Your task to perform on an android device: Add logitech g pro to the cart on costco.com Image 0: 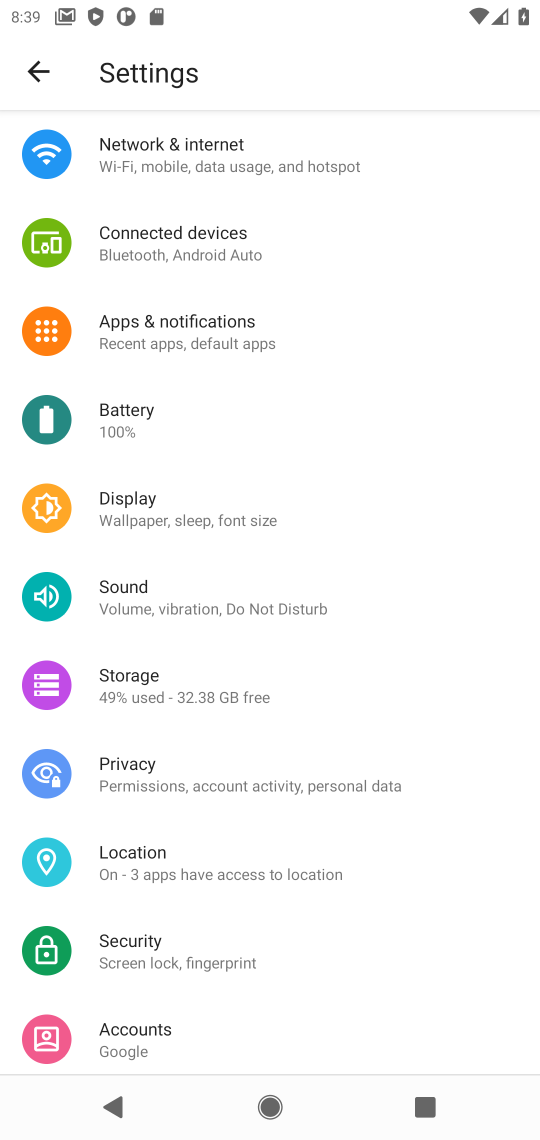
Step 0: press home button
Your task to perform on an android device: Add logitech g pro to the cart on costco.com Image 1: 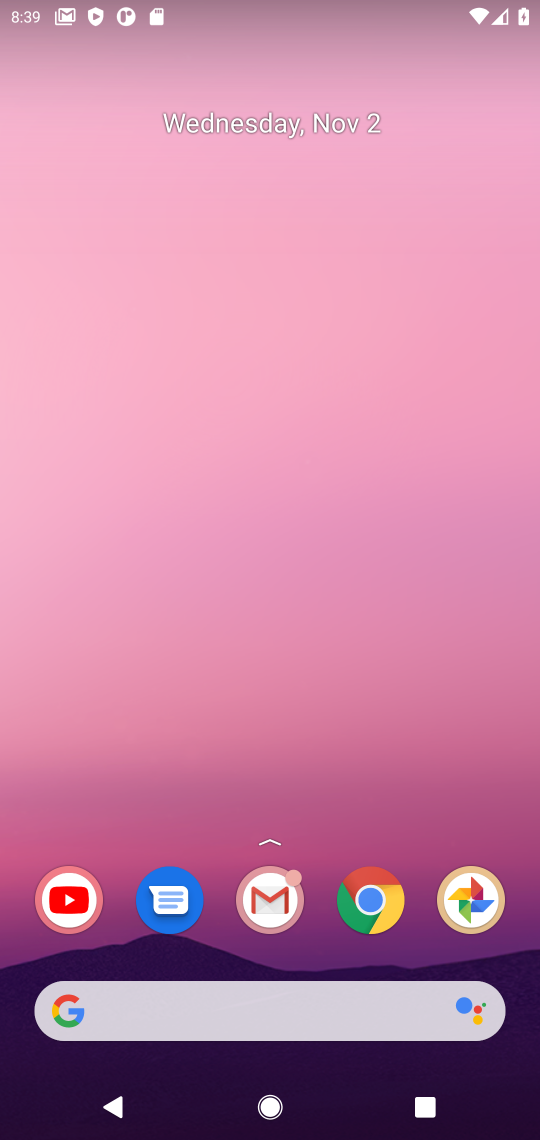
Step 1: click (376, 876)
Your task to perform on an android device: Add logitech g pro to the cart on costco.com Image 2: 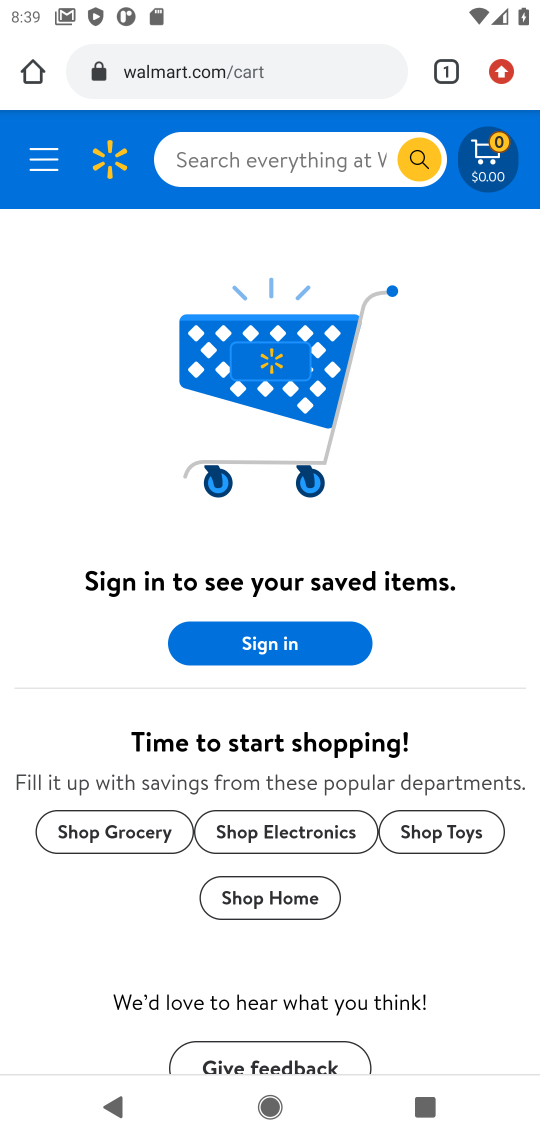
Step 2: click (230, 63)
Your task to perform on an android device: Add logitech g pro to the cart on costco.com Image 3: 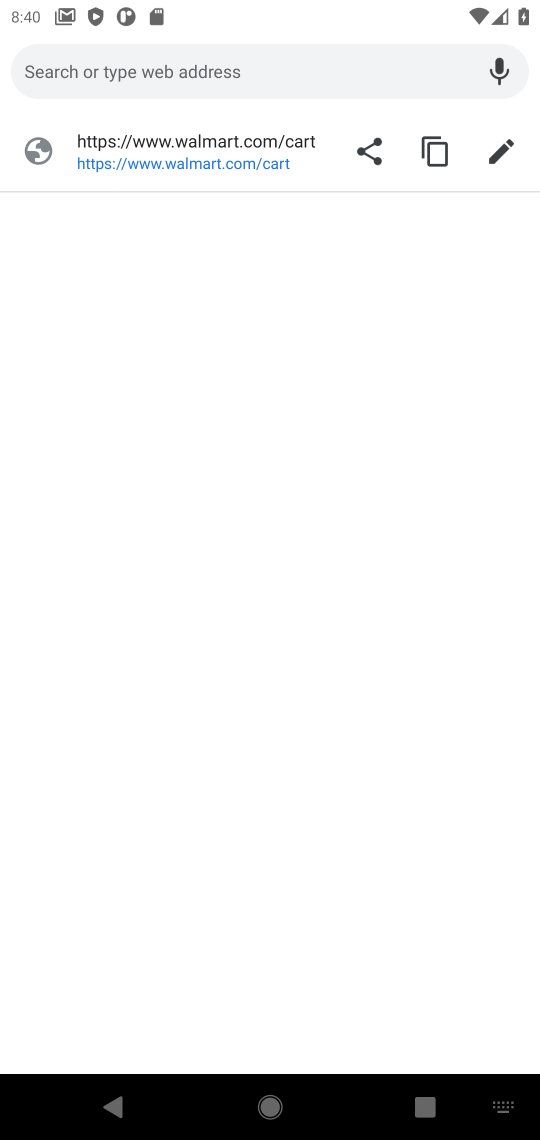
Step 3: type "costco"
Your task to perform on an android device: Add logitech g pro to the cart on costco.com Image 4: 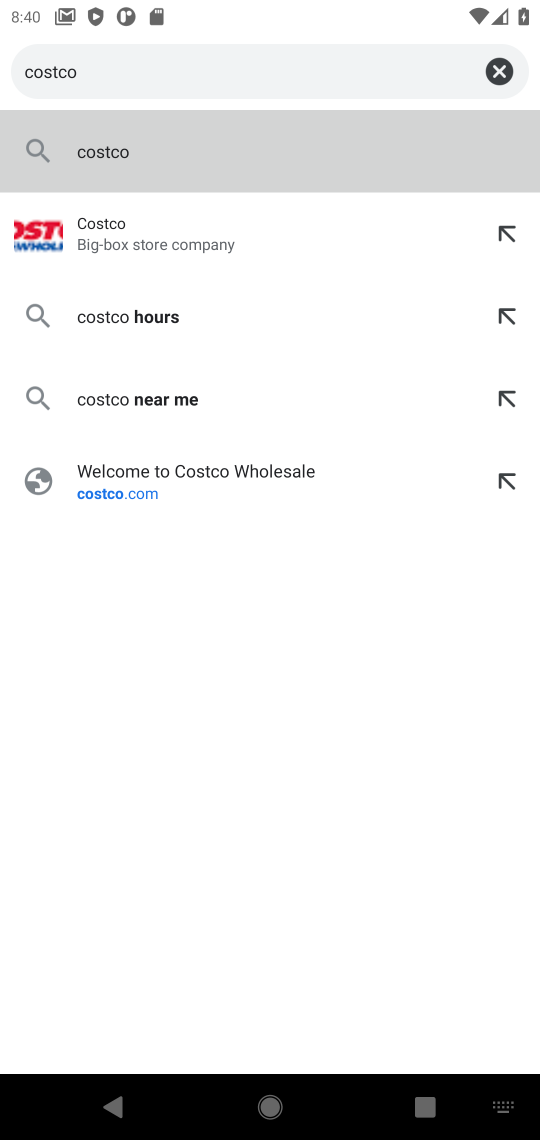
Step 4: click (118, 240)
Your task to perform on an android device: Add logitech g pro to the cart on costco.com Image 5: 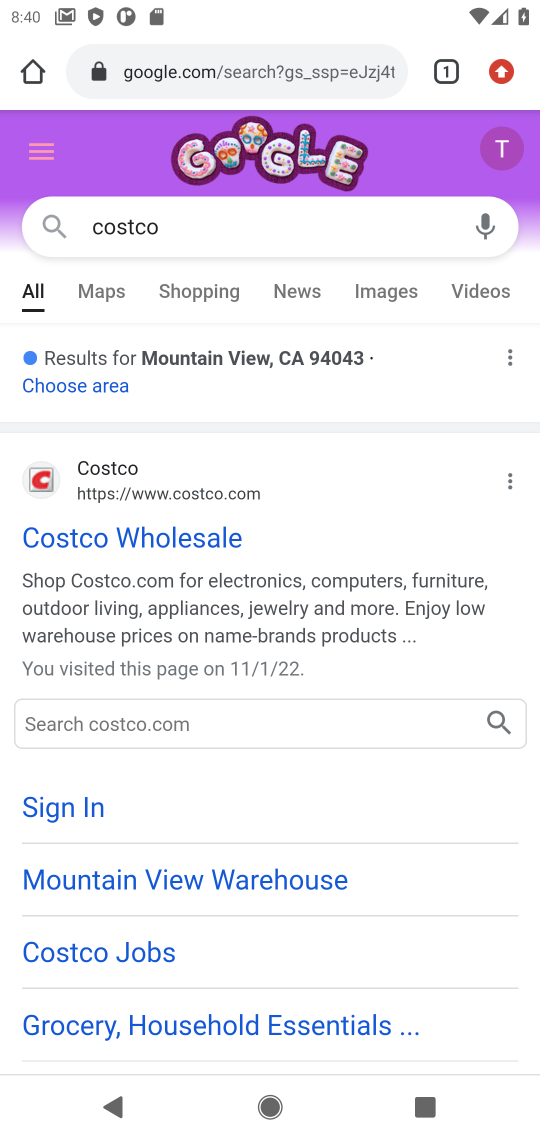
Step 5: click (134, 531)
Your task to perform on an android device: Add logitech g pro to the cart on costco.com Image 6: 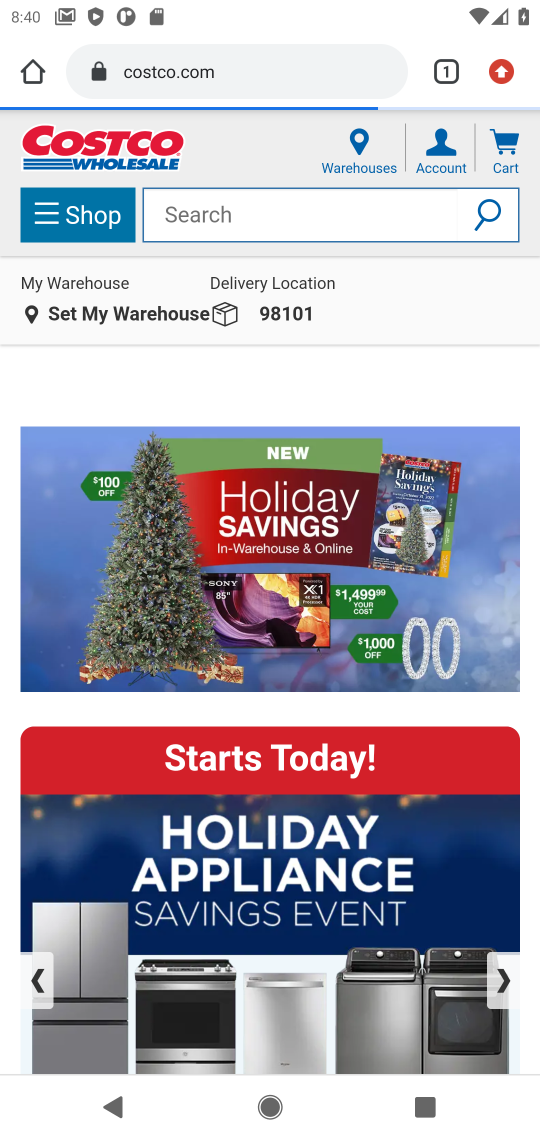
Step 6: drag from (369, 1138) to (166, 1093)
Your task to perform on an android device: Add logitech g pro to the cart on costco.com Image 7: 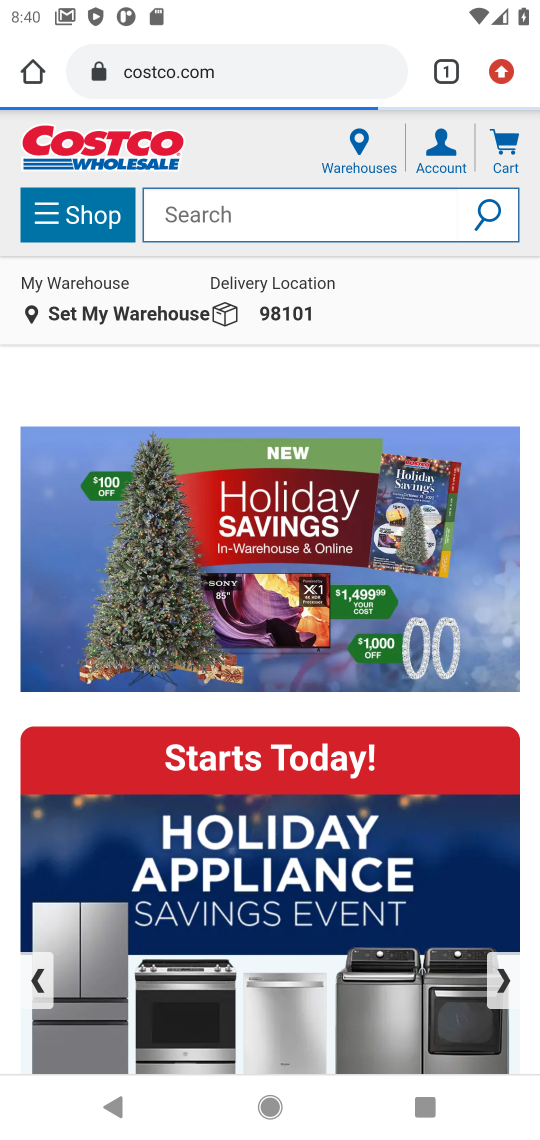
Step 7: click (187, 219)
Your task to perform on an android device: Add logitech g pro to the cart on costco.com Image 8: 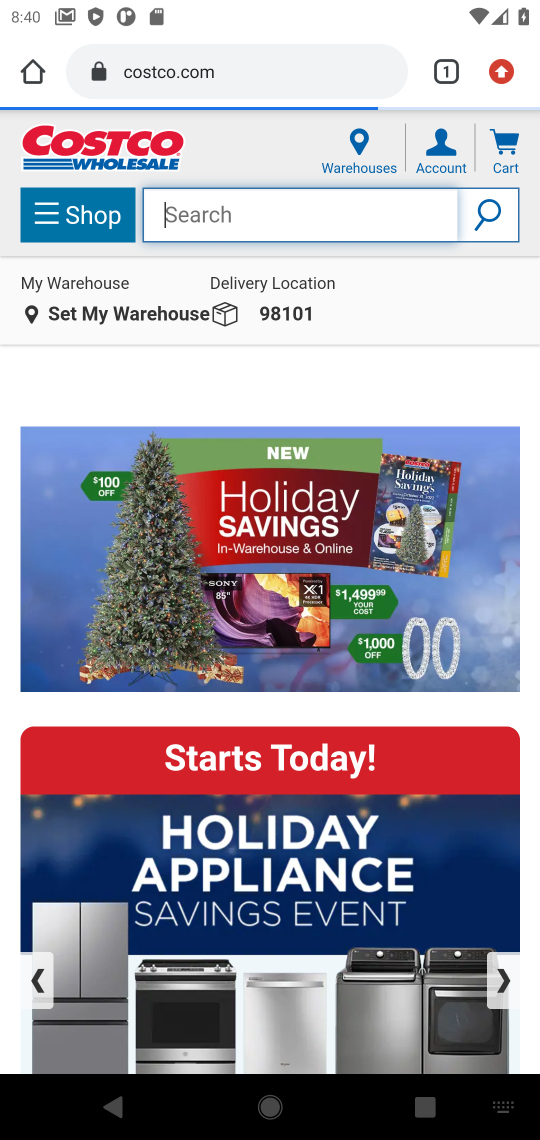
Step 8: type "logitech g pro "
Your task to perform on an android device: Add logitech g pro to the cart on costco.com Image 9: 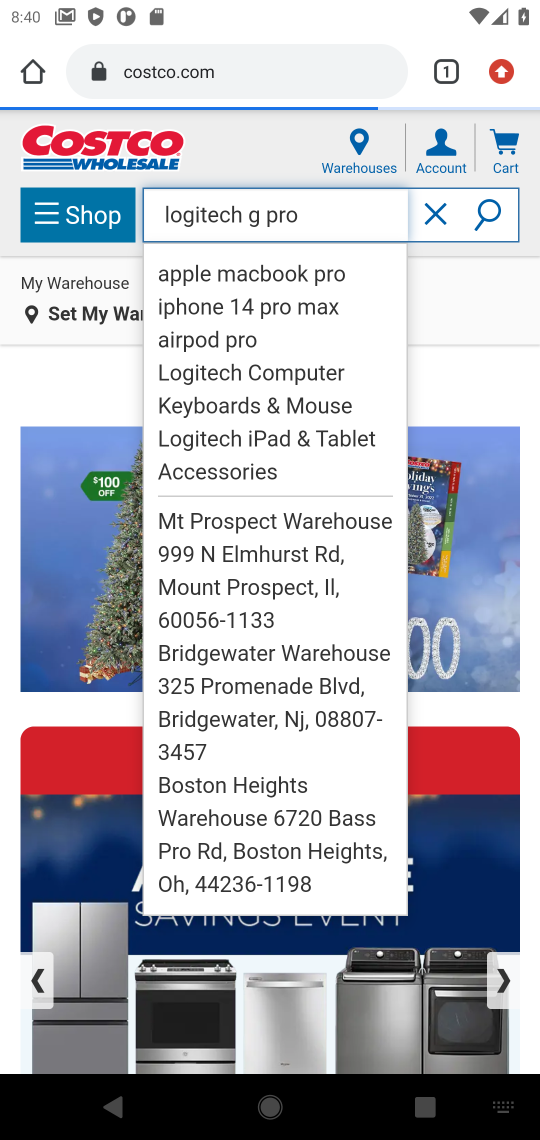
Step 9: click (498, 209)
Your task to perform on an android device: Add logitech g pro to the cart on costco.com Image 10: 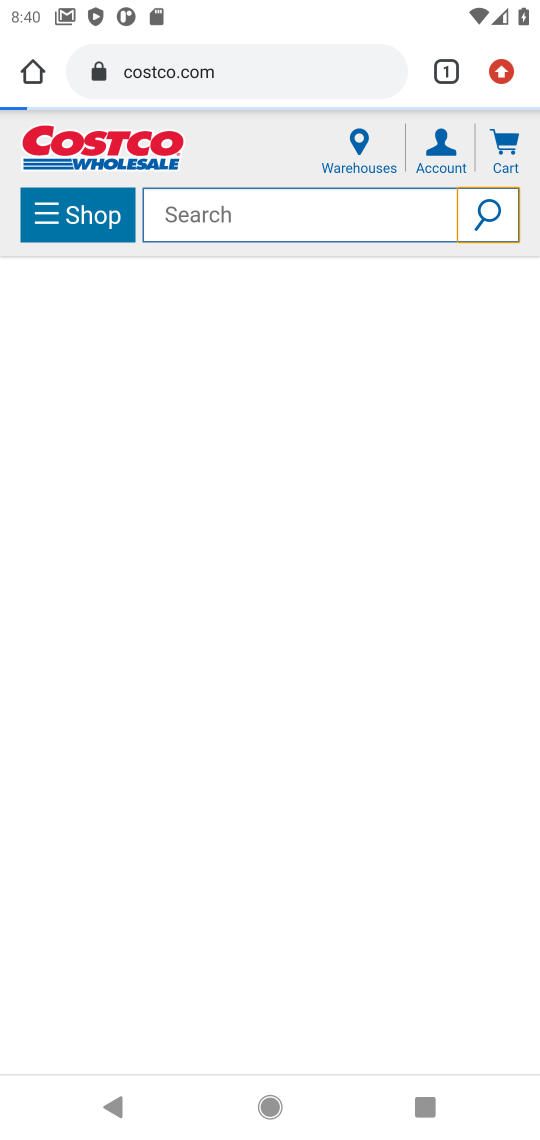
Step 10: click (473, 224)
Your task to perform on an android device: Add logitech g pro to the cart on costco.com Image 11: 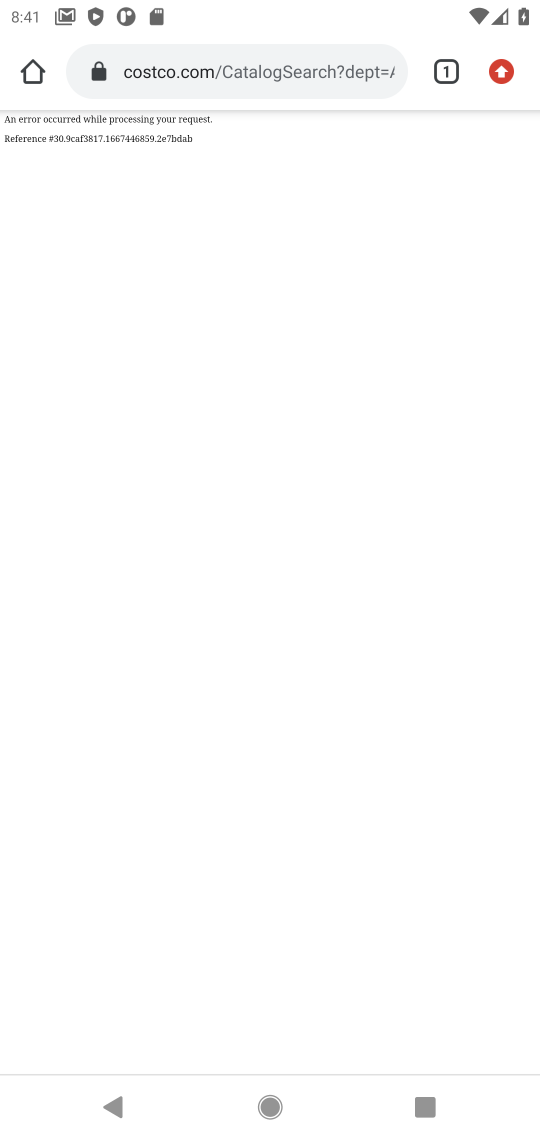
Step 11: task complete